Your task to perform on an android device: create a new album in the google photos Image 0: 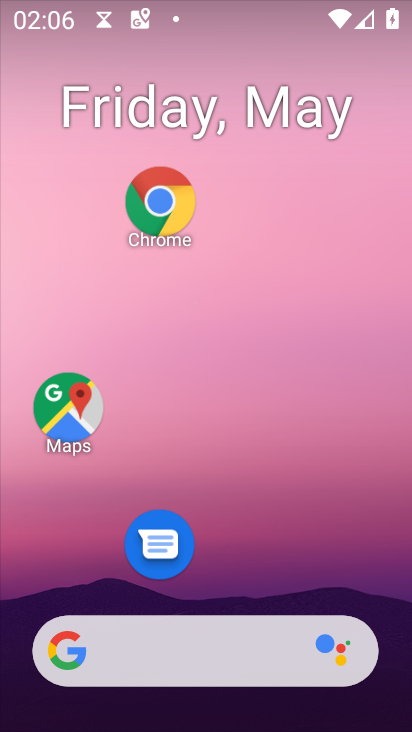
Step 0: drag from (305, 555) to (235, 124)
Your task to perform on an android device: create a new album in the google photos Image 1: 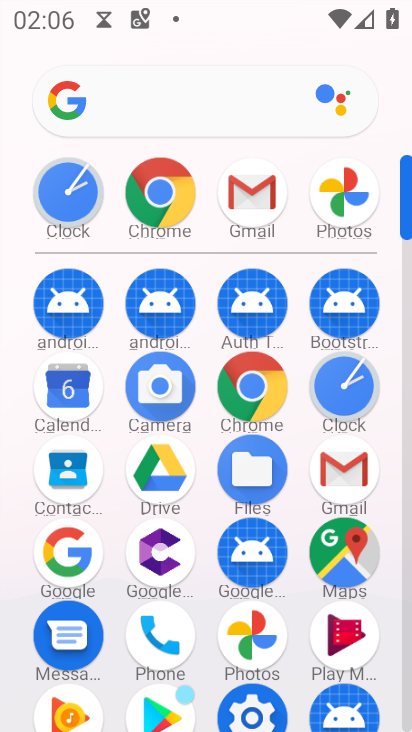
Step 1: drag from (210, 260) to (185, 63)
Your task to perform on an android device: create a new album in the google photos Image 2: 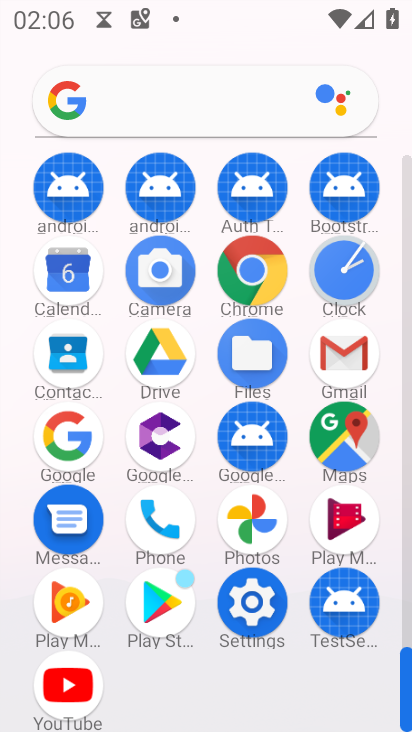
Step 2: click (260, 535)
Your task to perform on an android device: create a new album in the google photos Image 3: 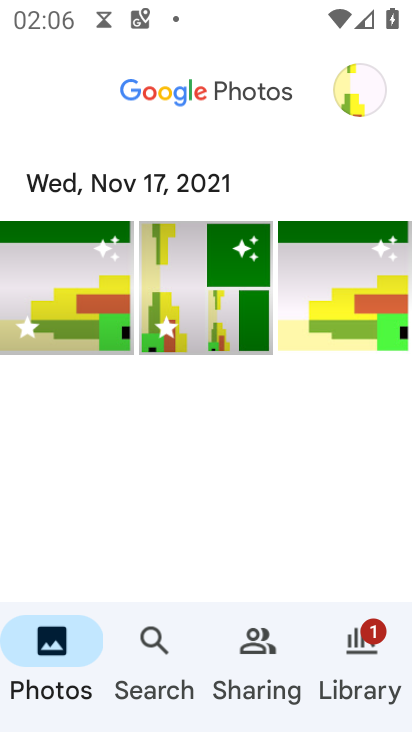
Step 3: click (326, 663)
Your task to perform on an android device: create a new album in the google photos Image 4: 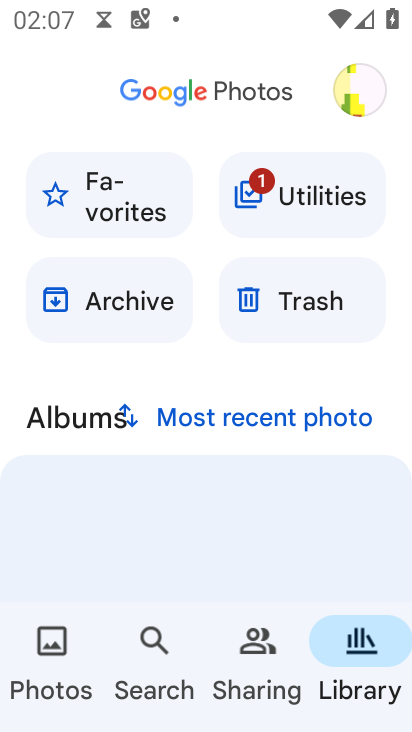
Step 4: drag from (214, 482) to (240, 177)
Your task to perform on an android device: create a new album in the google photos Image 5: 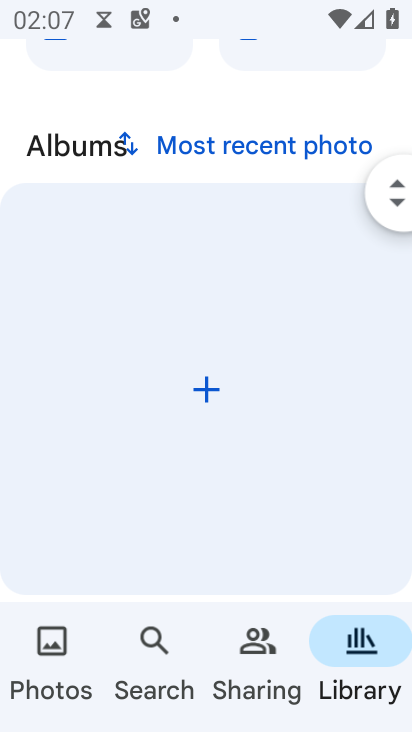
Step 5: click (210, 377)
Your task to perform on an android device: create a new album in the google photos Image 6: 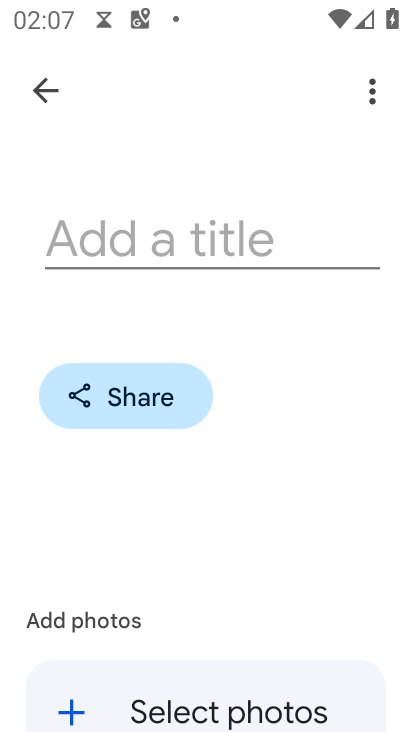
Step 6: click (189, 256)
Your task to perform on an android device: create a new album in the google photos Image 7: 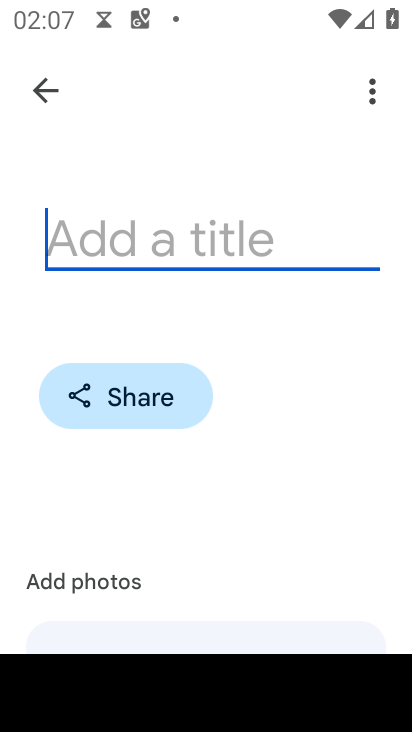
Step 7: type "hdhgff"
Your task to perform on an android device: create a new album in the google photos Image 8: 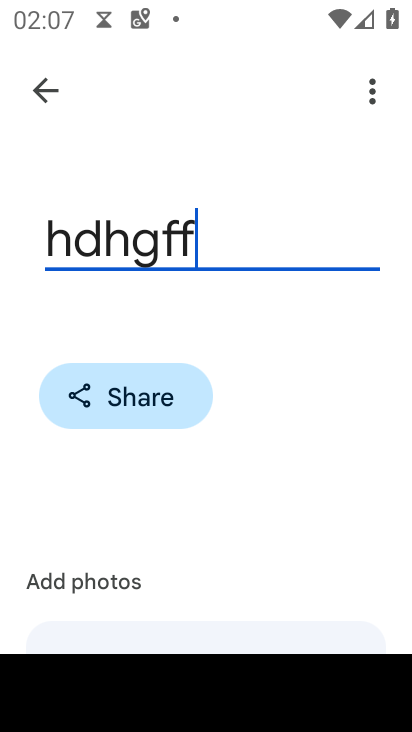
Step 8: drag from (309, 459) to (285, 212)
Your task to perform on an android device: create a new album in the google photos Image 9: 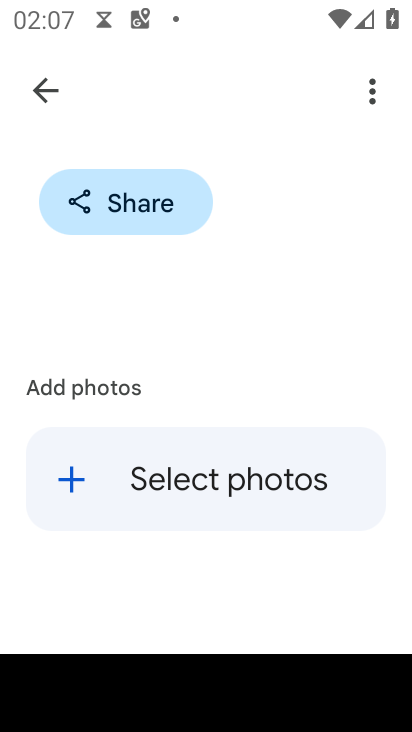
Step 9: click (252, 476)
Your task to perform on an android device: create a new album in the google photos Image 10: 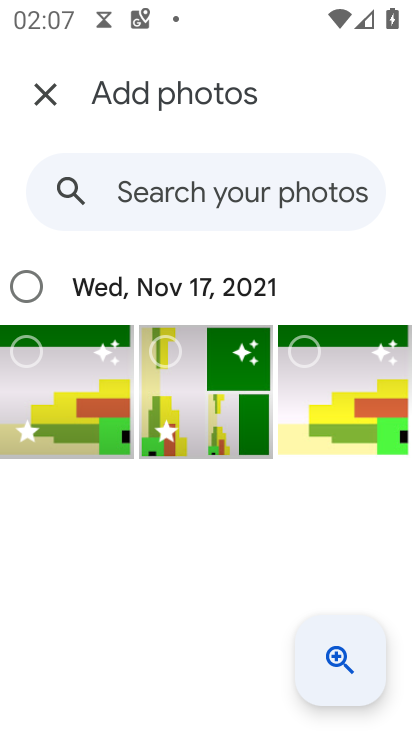
Step 10: click (87, 378)
Your task to perform on an android device: create a new album in the google photos Image 11: 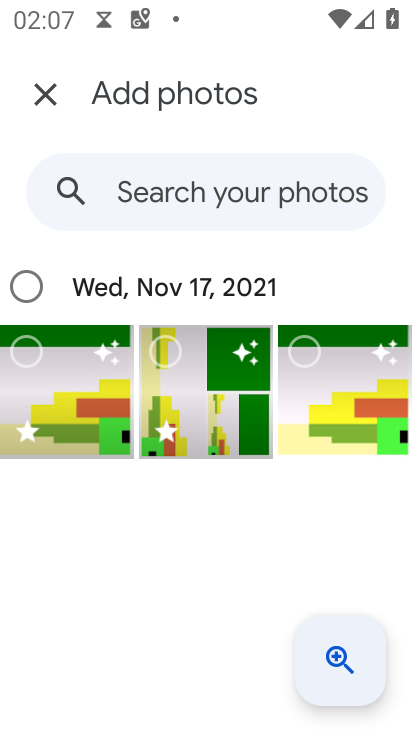
Step 11: click (221, 370)
Your task to perform on an android device: create a new album in the google photos Image 12: 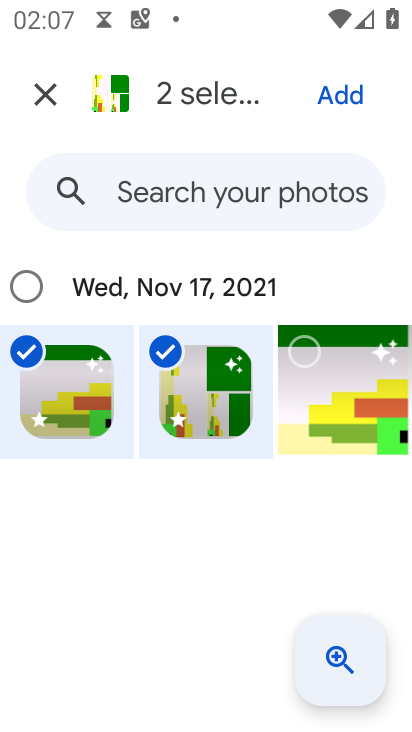
Step 12: click (371, 106)
Your task to perform on an android device: create a new album in the google photos Image 13: 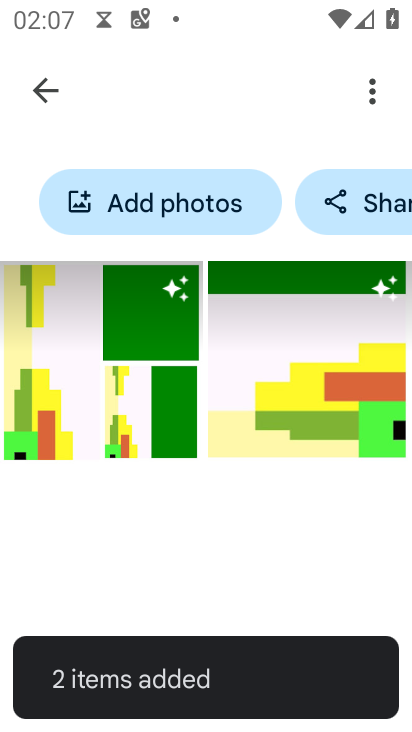
Step 13: task complete